Your task to perform on an android device: create a new album in the google photos Image 0: 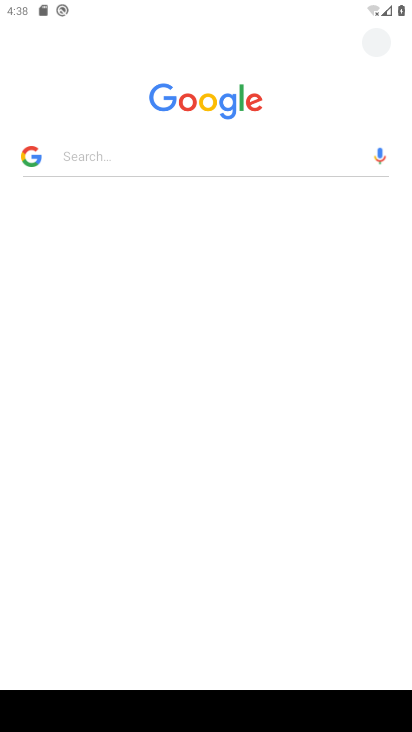
Step 0: press home button
Your task to perform on an android device: create a new album in the google photos Image 1: 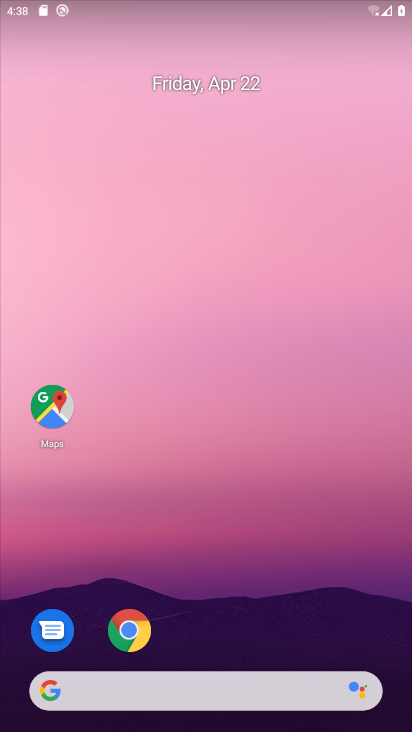
Step 1: drag from (246, 417) to (267, 86)
Your task to perform on an android device: create a new album in the google photos Image 2: 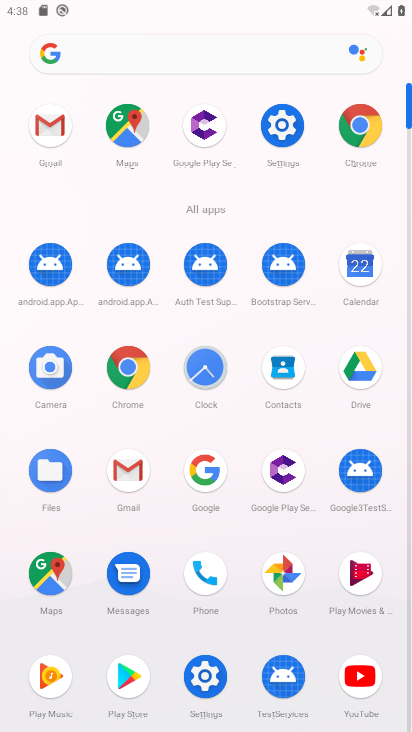
Step 2: click (274, 561)
Your task to perform on an android device: create a new album in the google photos Image 3: 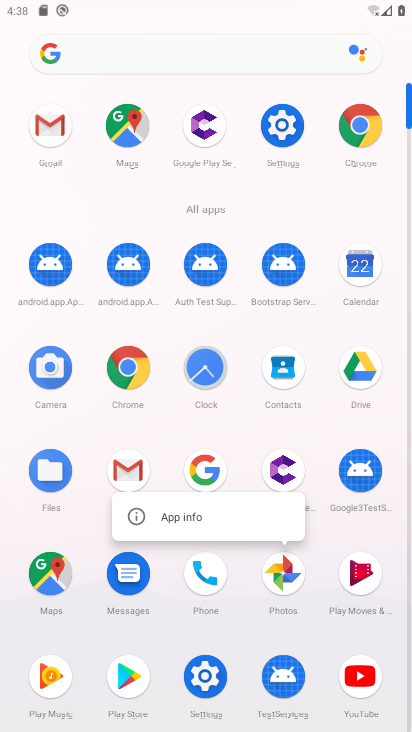
Step 3: click (281, 564)
Your task to perform on an android device: create a new album in the google photos Image 4: 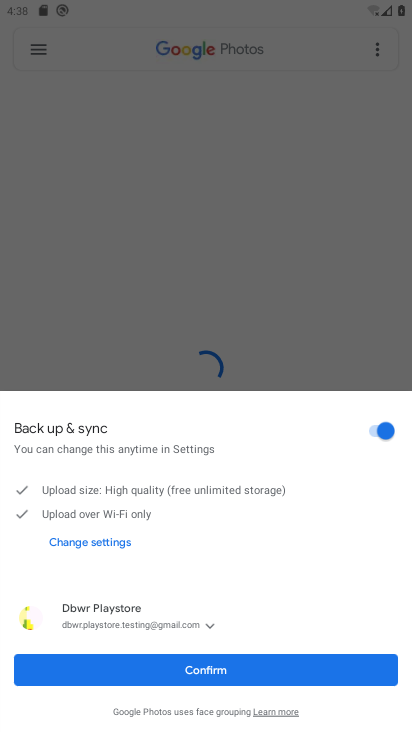
Step 4: click (180, 678)
Your task to perform on an android device: create a new album in the google photos Image 5: 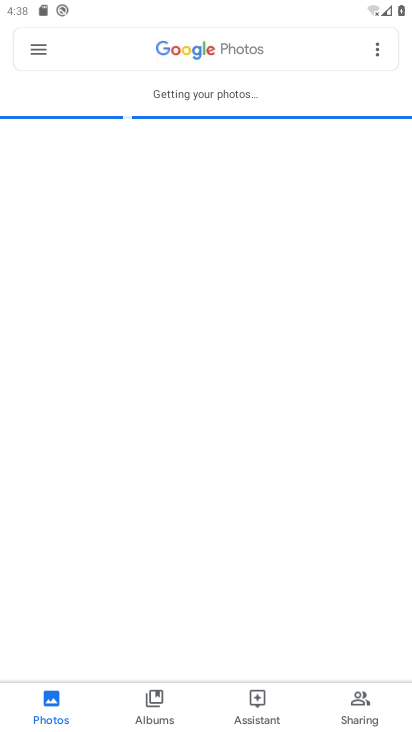
Step 5: click (159, 696)
Your task to perform on an android device: create a new album in the google photos Image 6: 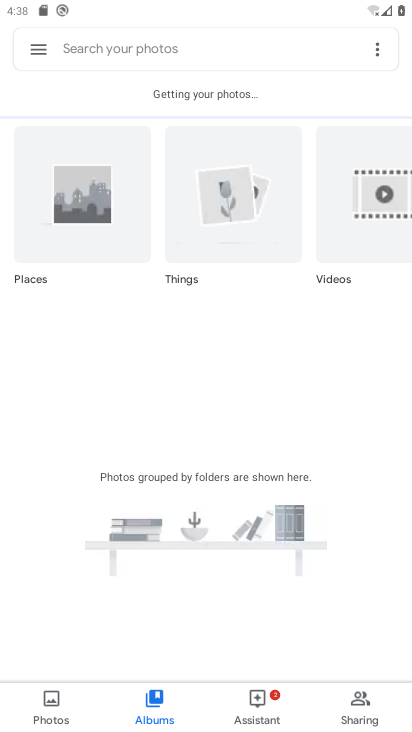
Step 6: click (378, 49)
Your task to perform on an android device: create a new album in the google photos Image 7: 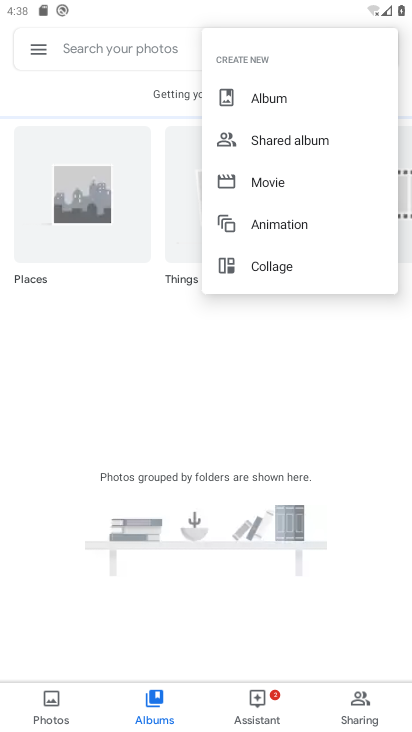
Step 7: click (276, 95)
Your task to perform on an android device: create a new album in the google photos Image 8: 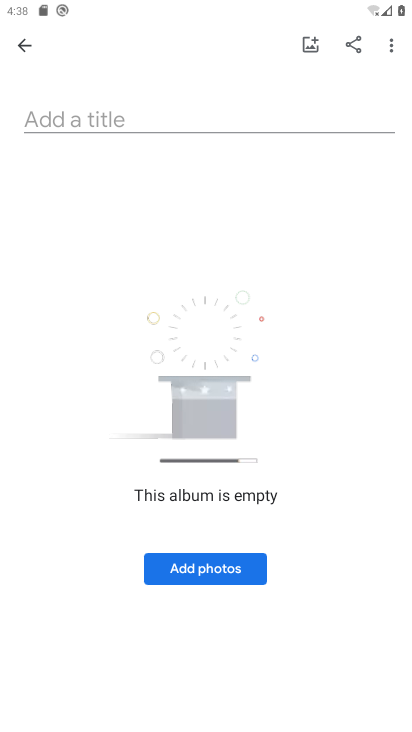
Step 8: click (173, 103)
Your task to perform on an android device: create a new album in the google photos Image 9: 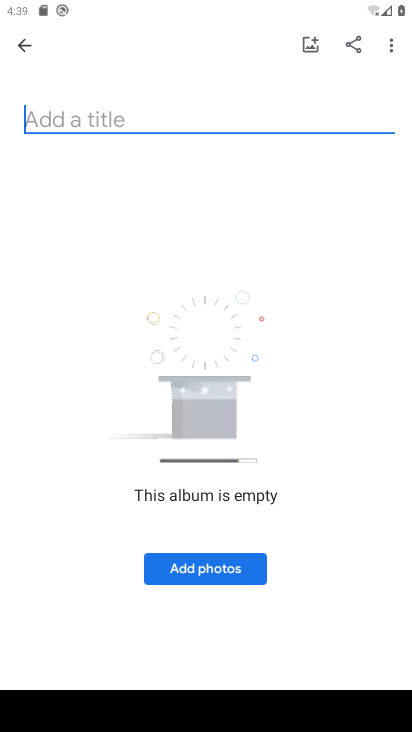
Step 9: type "sdfghjkkmnbvcd"
Your task to perform on an android device: create a new album in the google photos Image 10: 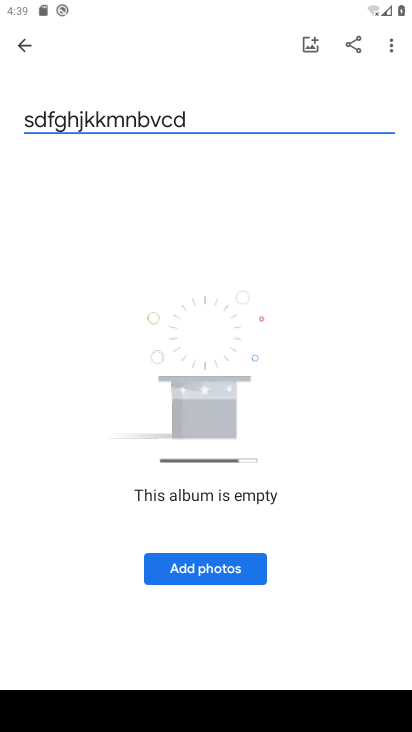
Step 10: click (215, 565)
Your task to perform on an android device: create a new album in the google photos Image 11: 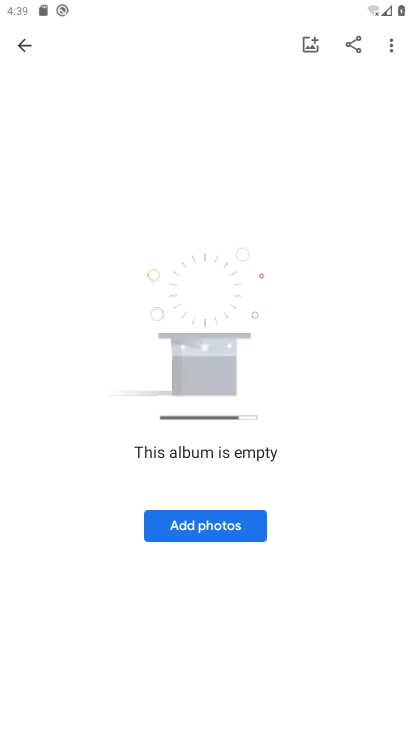
Step 11: click (209, 520)
Your task to perform on an android device: create a new album in the google photos Image 12: 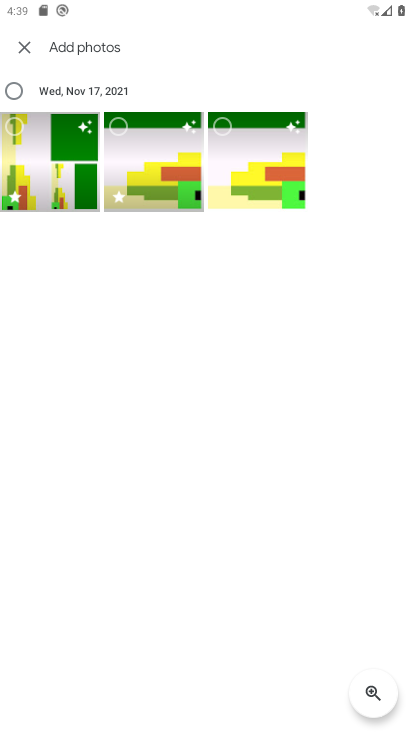
Step 12: click (180, 176)
Your task to perform on an android device: create a new album in the google photos Image 13: 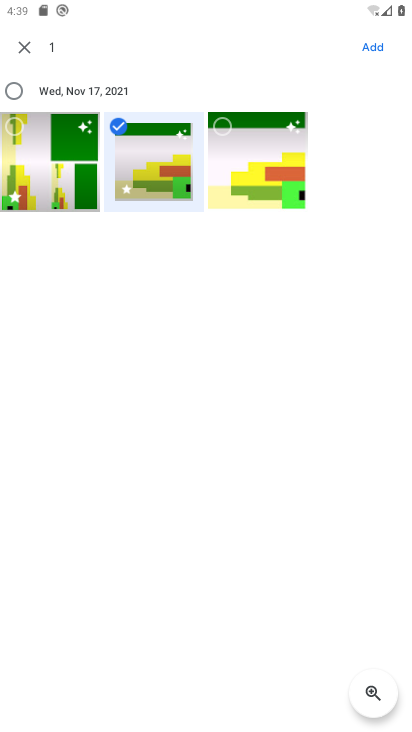
Step 13: click (379, 46)
Your task to perform on an android device: create a new album in the google photos Image 14: 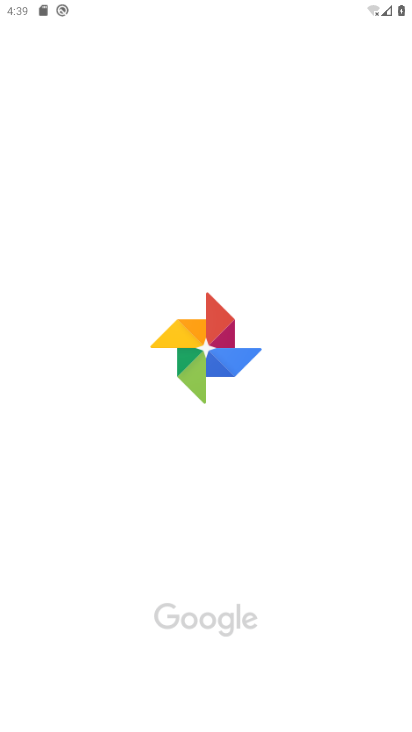
Step 14: task complete